Your task to perform on an android device: Open sound settings Image 0: 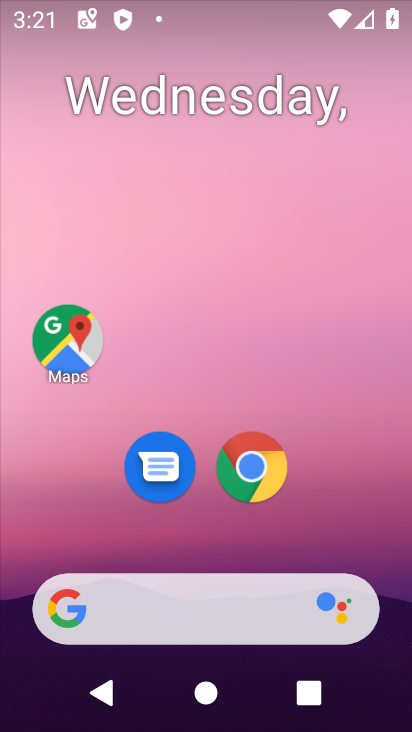
Step 0: drag from (379, 562) to (260, 69)
Your task to perform on an android device: Open sound settings Image 1: 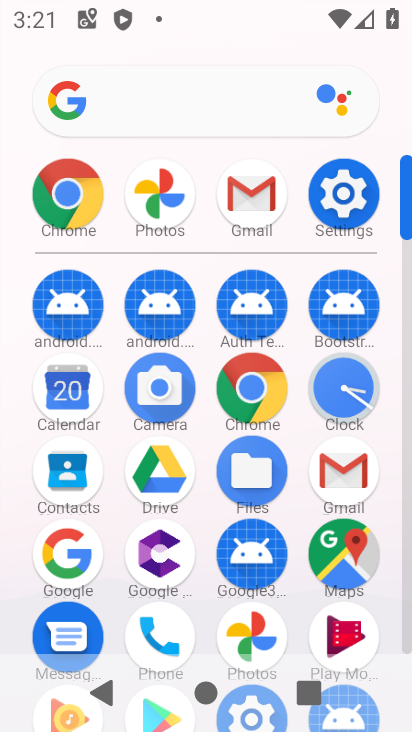
Step 1: click (407, 644)
Your task to perform on an android device: Open sound settings Image 2: 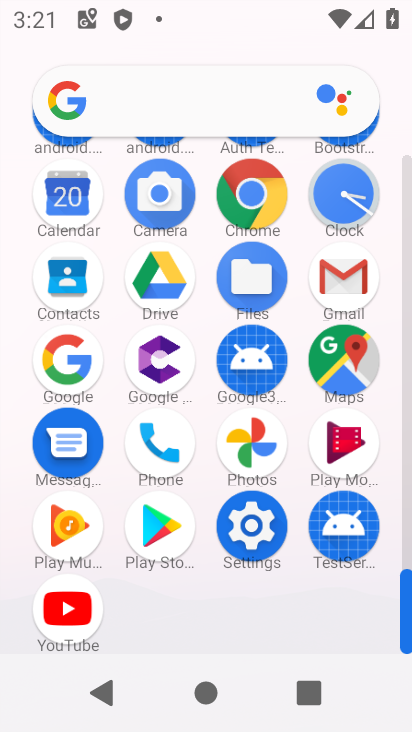
Step 2: click (251, 526)
Your task to perform on an android device: Open sound settings Image 3: 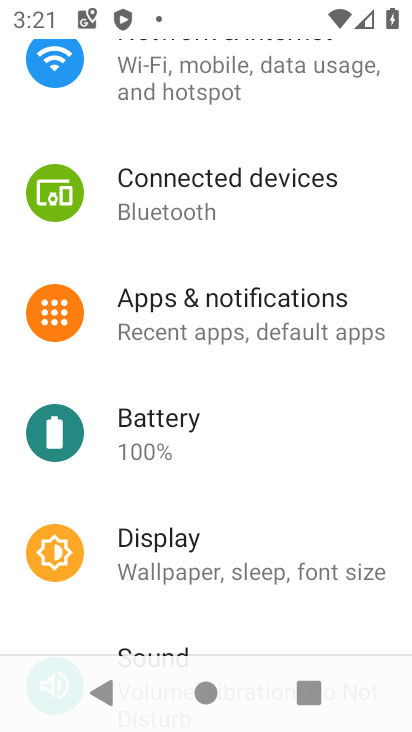
Step 3: drag from (310, 496) to (299, 186)
Your task to perform on an android device: Open sound settings Image 4: 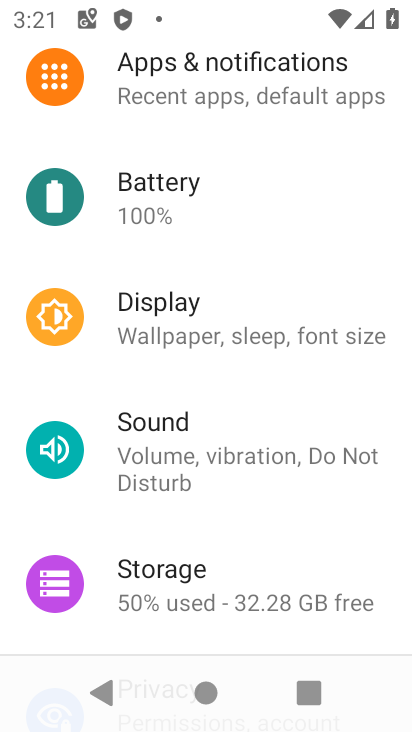
Step 4: click (139, 450)
Your task to perform on an android device: Open sound settings Image 5: 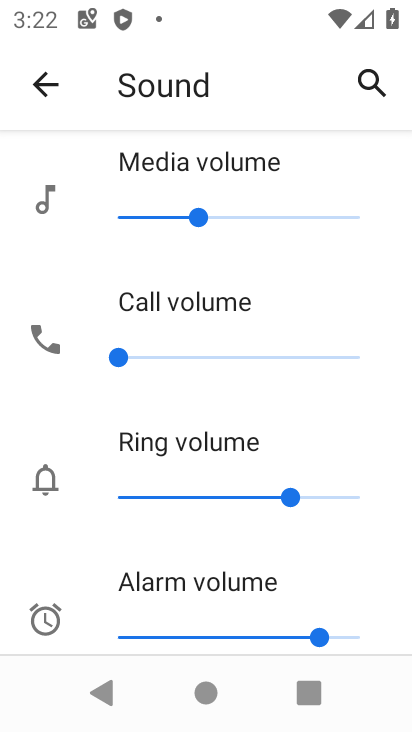
Step 5: drag from (352, 567) to (322, 296)
Your task to perform on an android device: Open sound settings Image 6: 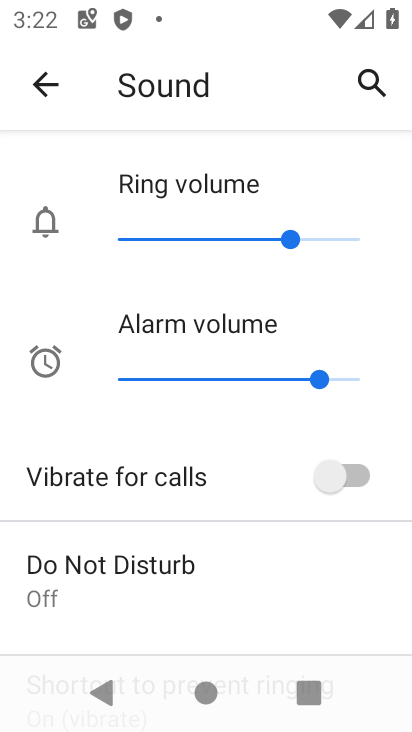
Step 6: drag from (305, 577) to (343, 214)
Your task to perform on an android device: Open sound settings Image 7: 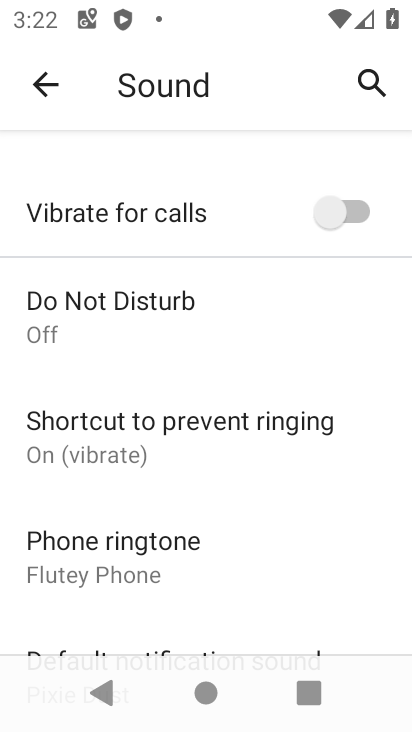
Step 7: drag from (338, 561) to (338, 265)
Your task to perform on an android device: Open sound settings Image 8: 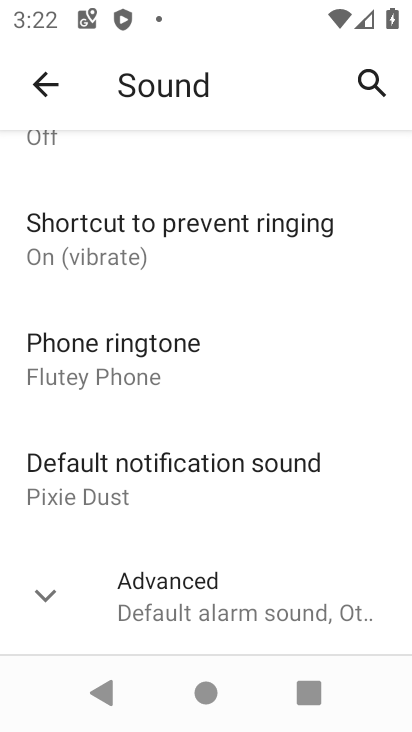
Step 8: click (55, 603)
Your task to perform on an android device: Open sound settings Image 9: 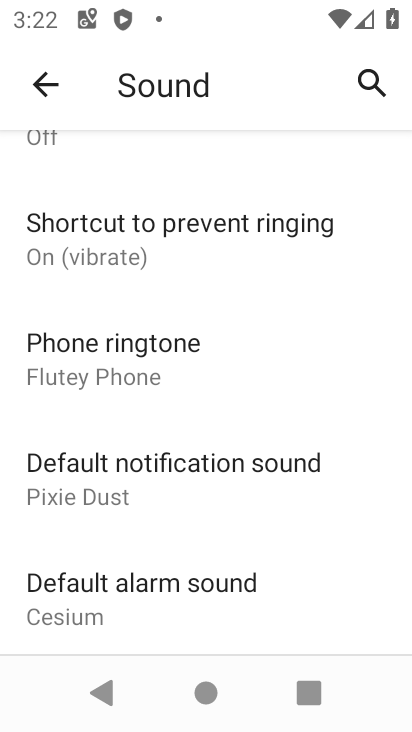
Step 9: task complete